Your task to perform on an android device: turn on improve location accuracy Image 0: 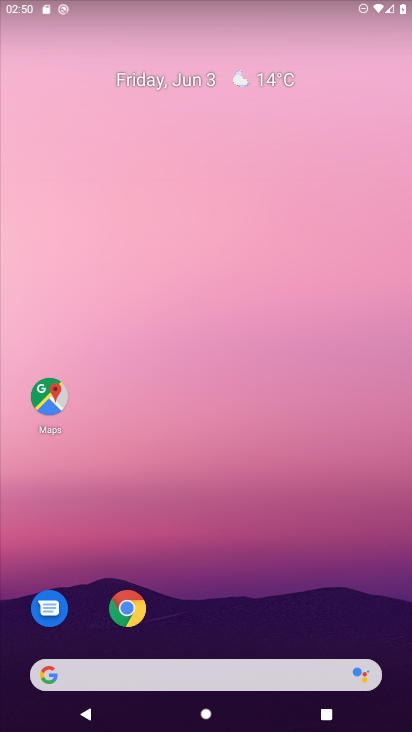
Step 0: drag from (345, 544) to (214, 177)
Your task to perform on an android device: turn on improve location accuracy Image 1: 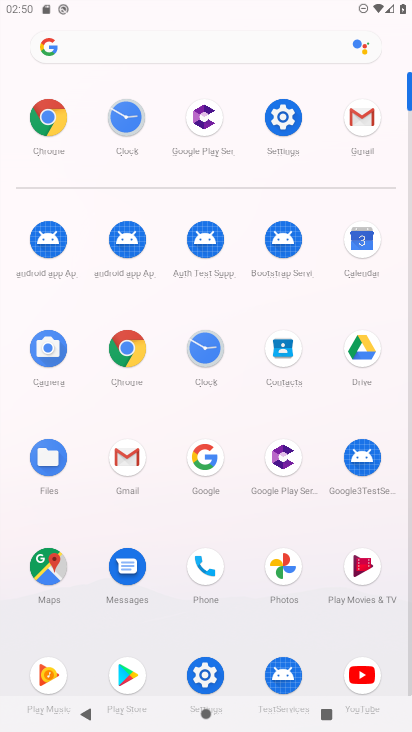
Step 1: click (286, 117)
Your task to perform on an android device: turn on improve location accuracy Image 2: 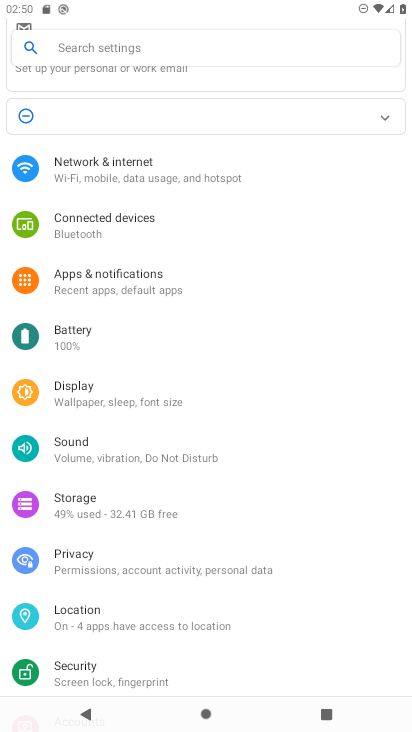
Step 2: click (132, 619)
Your task to perform on an android device: turn on improve location accuracy Image 3: 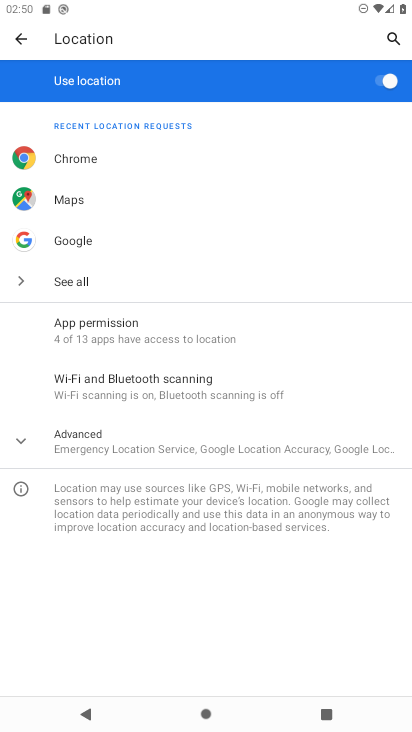
Step 3: click (90, 433)
Your task to perform on an android device: turn on improve location accuracy Image 4: 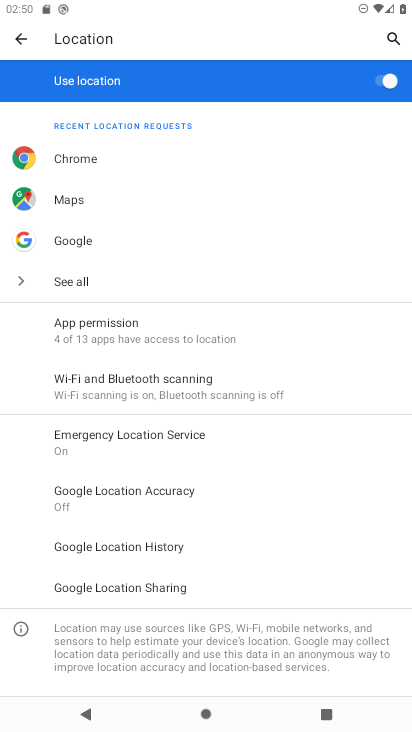
Step 4: click (164, 495)
Your task to perform on an android device: turn on improve location accuracy Image 5: 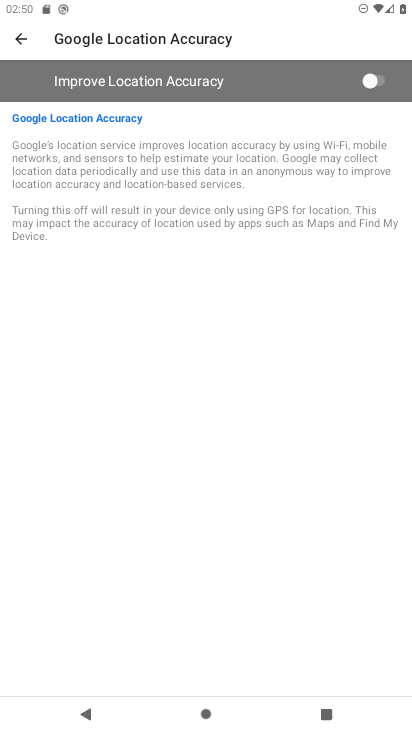
Step 5: click (369, 81)
Your task to perform on an android device: turn on improve location accuracy Image 6: 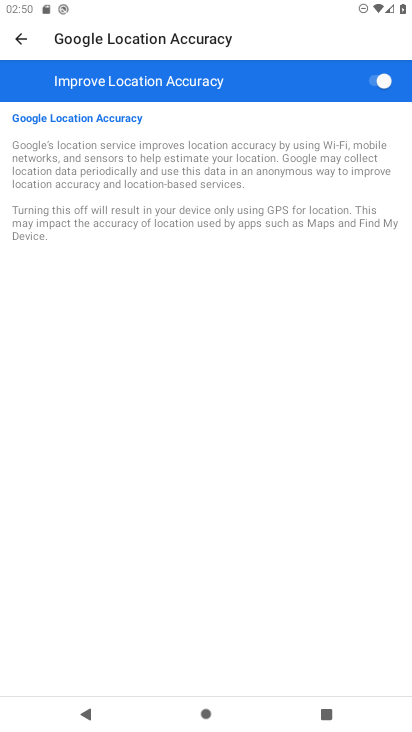
Step 6: task complete